Your task to perform on an android device: change the clock style Image 0: 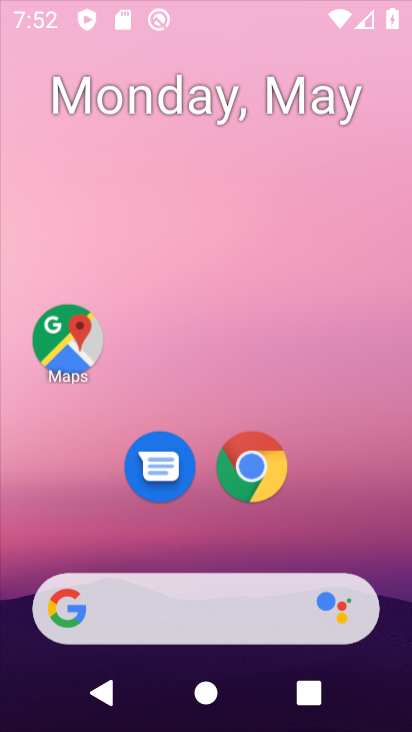
Step 0: click (268, 456)
Your task to perform on an android device: change the clock style Image 1: 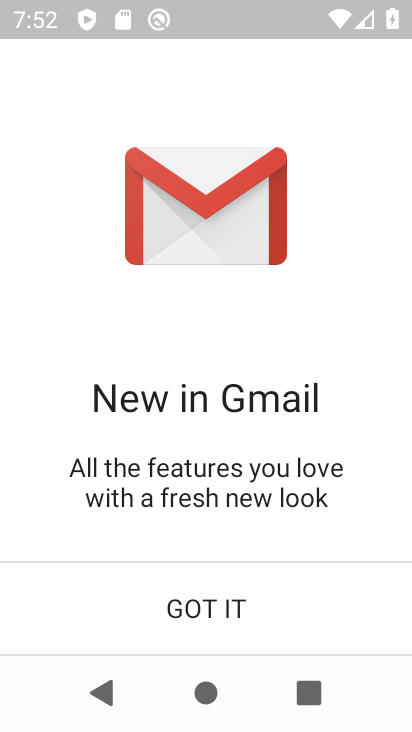
Step 1: press home button
Your task to perform on an android device: change the clock style Image 2: 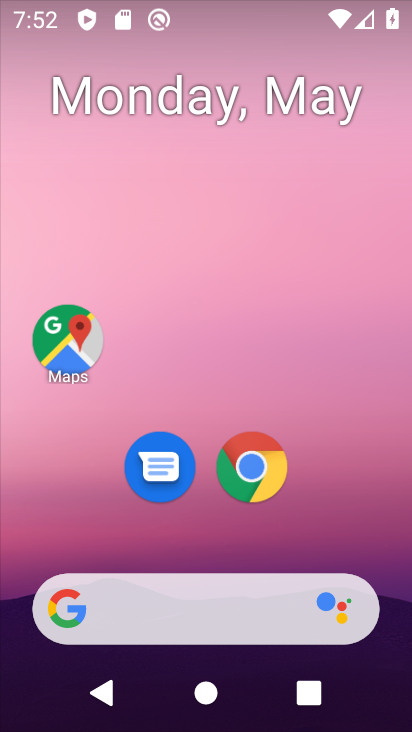
Step 2: drag from (336, 489) to (240, 21)
Your task to perform on an android device: change the clock style Image 3: 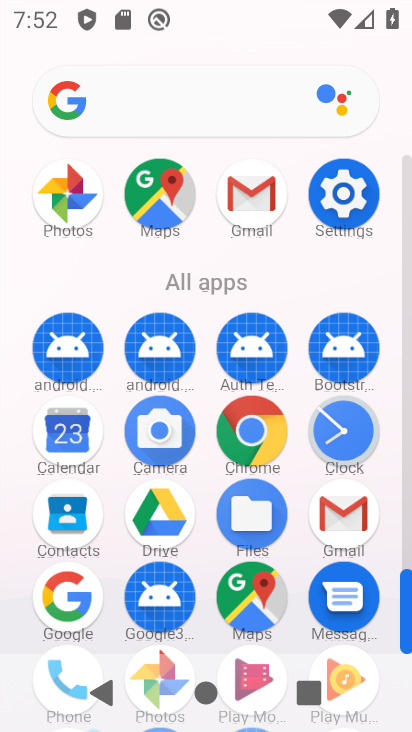
Step 3: click (337, 421)
Your task to perform on an android device: change the clock style Image 4: 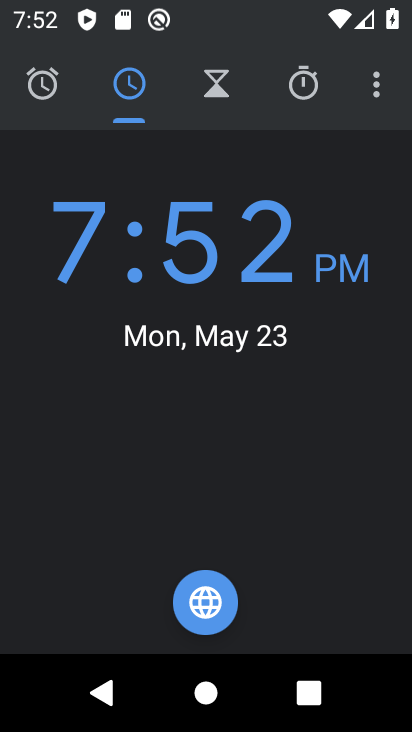
Step 4: click (371, 91)
Your task to perform on an android device: change the clock style Image 5: 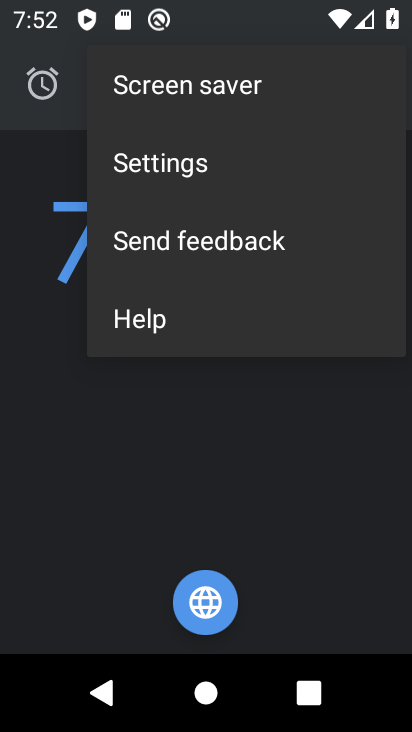
Step 5: click (261, 166)
Your task to perform on an android device: change the clock style Image 6: 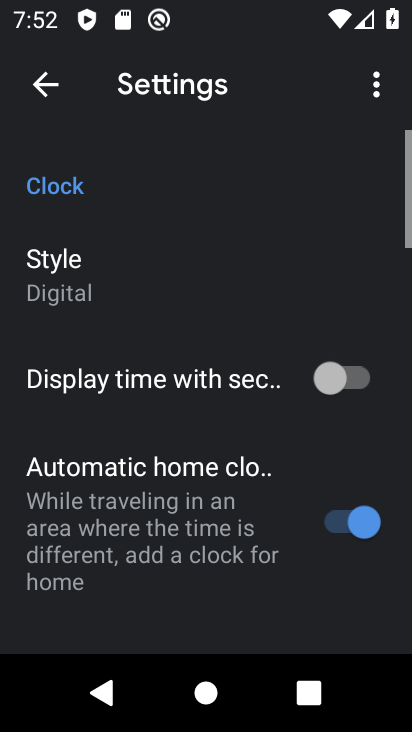
Step 6: click (93, 280)
Your task to perform on an android device: change the clock style Image 7: 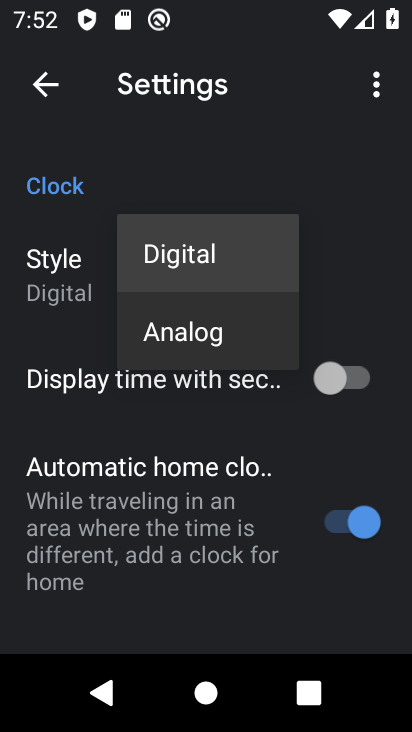
Step 7: click (179, 324)
Your task to perform on an android device: change the clock style Image 8: 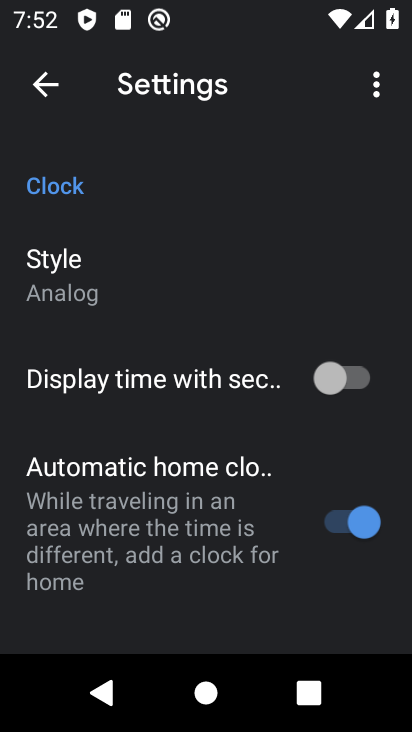
Step 8: task complete